Your task to perform on an android device: Go to Google maps Image 0: 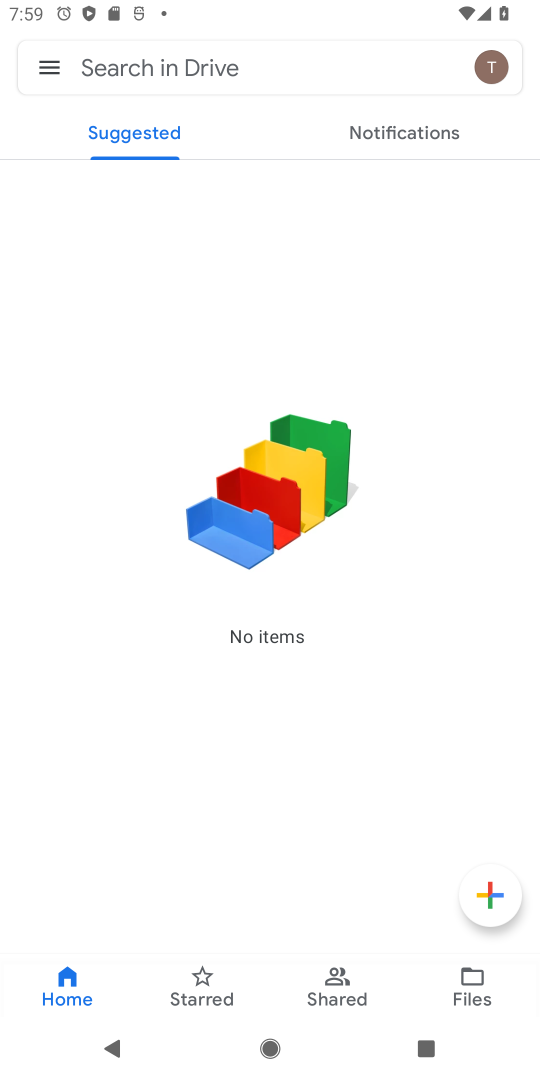
Step 0: press back button
Your task to perform on an android device: Go to Google maps Image 1: 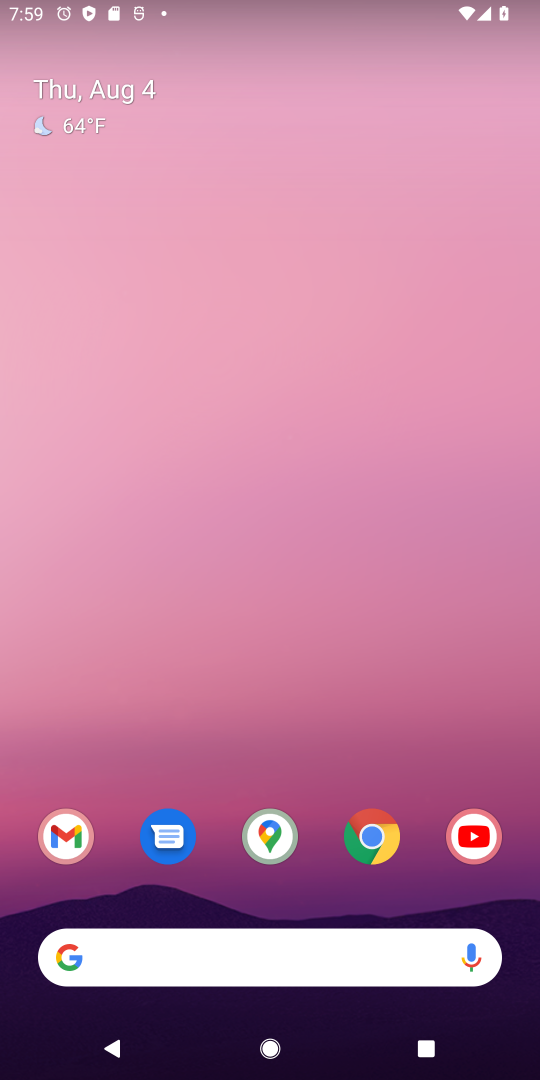
Step 1: click (277, 838)
Your task to perform on an android device: Go to Google maps Image 2: 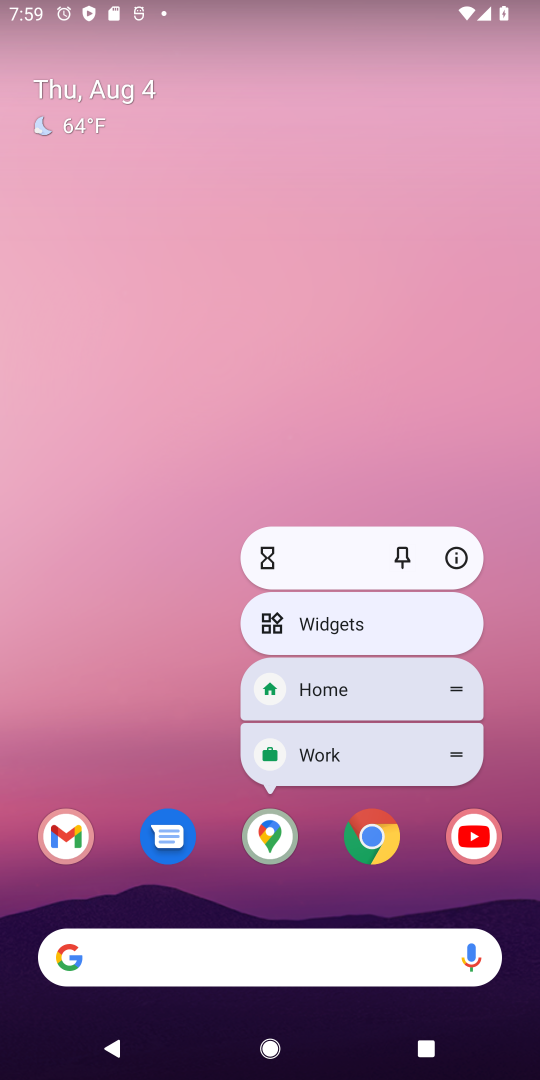
Step 2: click (280, 829)
Your task to perform on an android device: Go to Google maps Image 3: 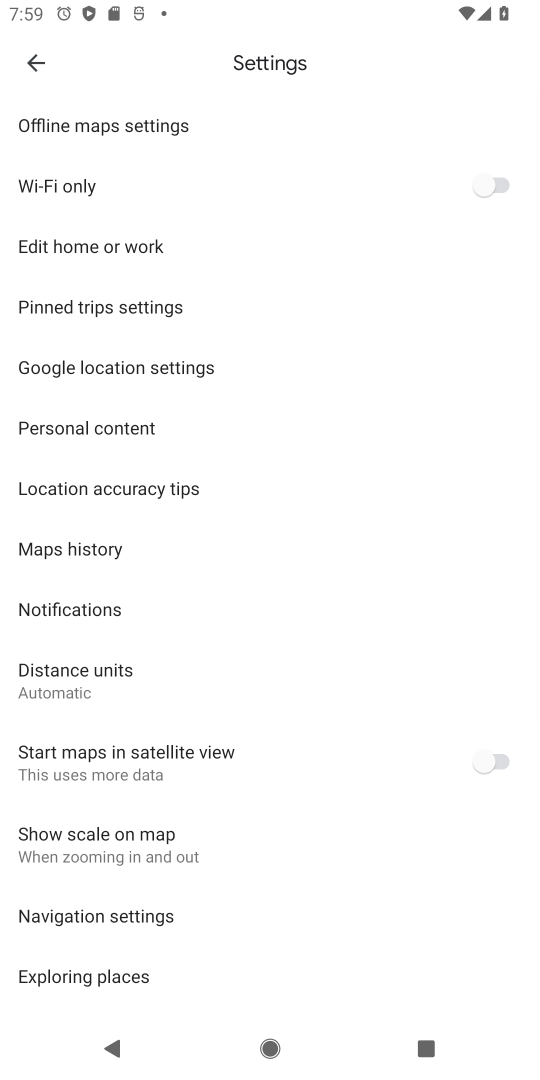
Step 3: click (44, 55)
Your task to perform on an android device: Go to Google maps Image 4: 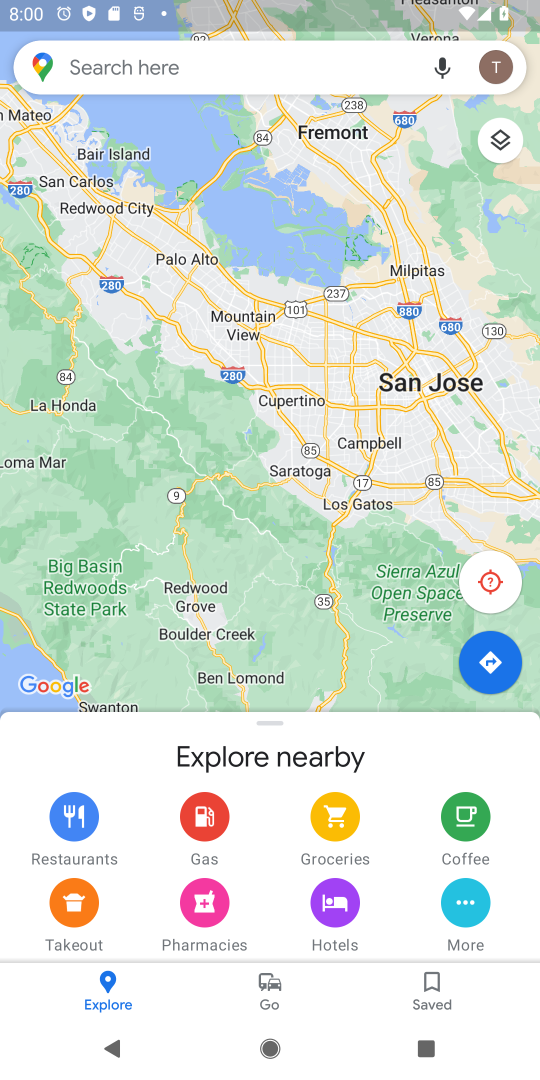
Step 4: task complete